Your task to perform on an android device: find which apps use the phone's location Image 0: 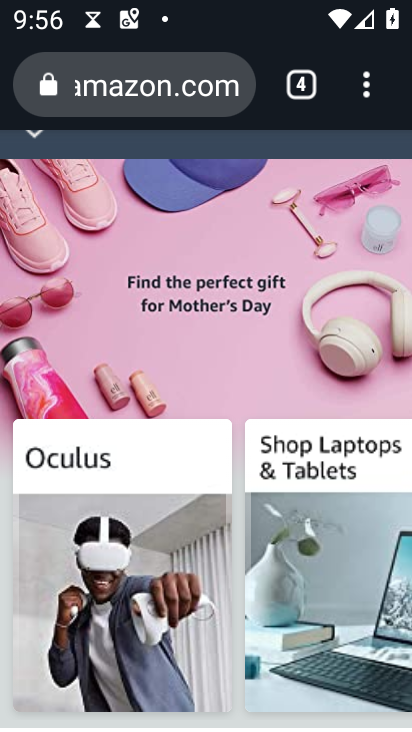
Step 0: press home button
Your task to perform on an android device: find which apps use the phone's location Image 1: 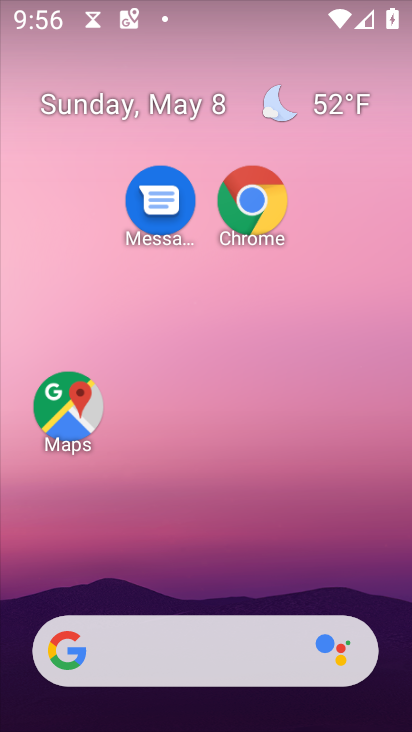
Step 1: drag from (205, 599) to (94, 28)
Your task to perform on an android device: find which apps use the phone's location Image 2: 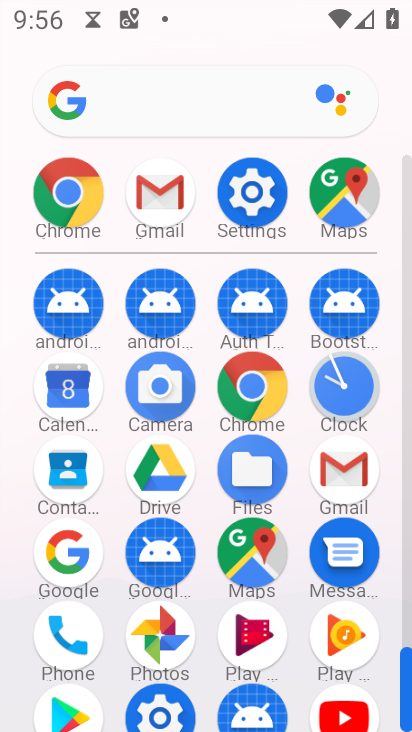
Step 2: click (241, 192)
Your task to perform on an android device: find which apps use the phone's location Image 3: 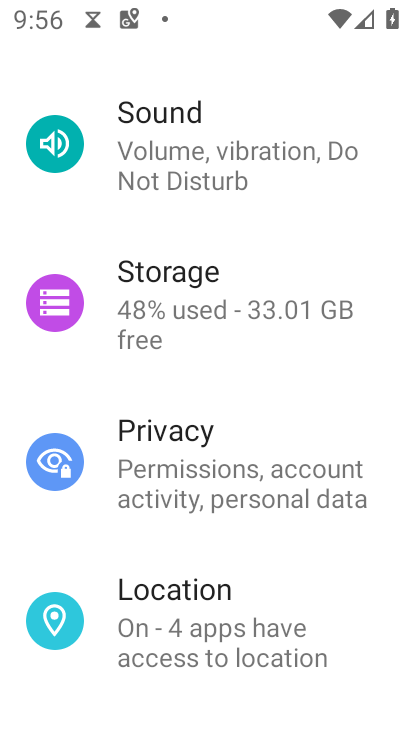
Step 3: click (155, 604)
Your task to perform on an android device: find which apps use the phone's location Image 4: 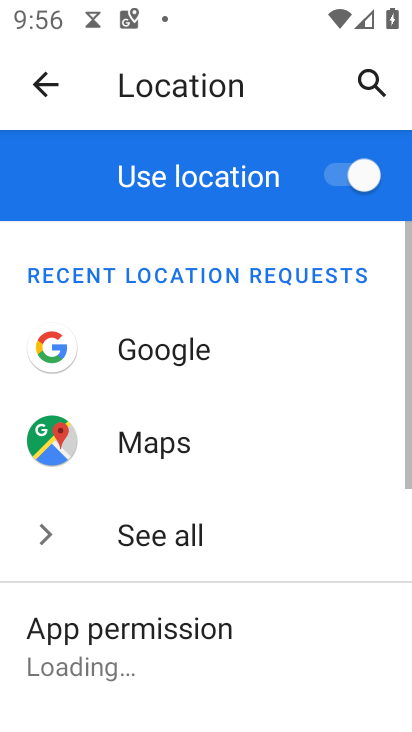
Step 4: drag from (220, 631) to (150, 152)
Your task to perform on an android device: find which apps use the phone's location Image 5: 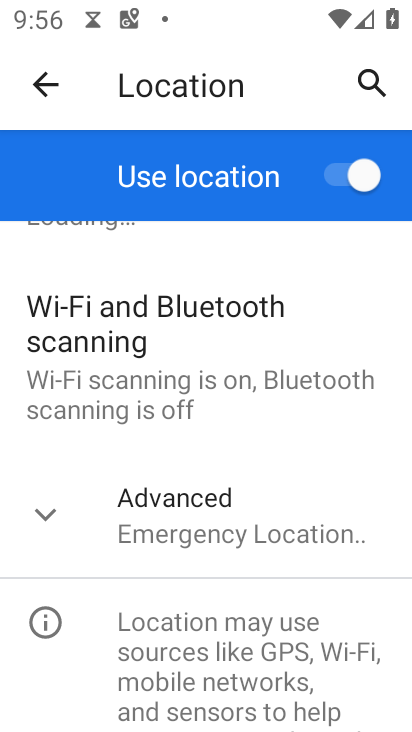
Step 5: drag from (141, 307) to (163, 638)
Your task to perform on an android device: find which apps use the phone's location Image 6: 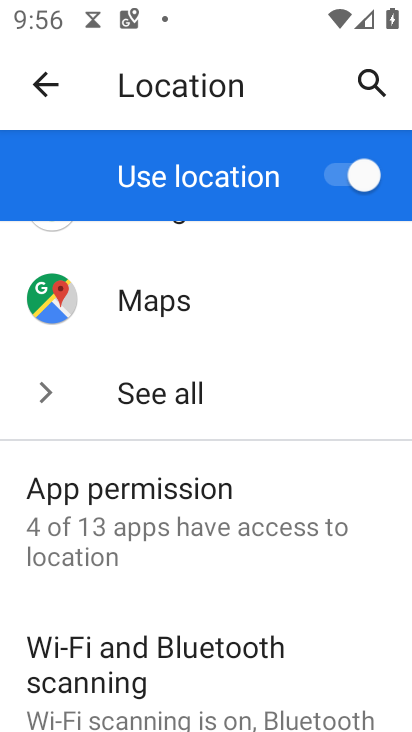
Step 6: click (131, 522)
Your task to perform on an android device: find which apps use the phone's location Image 7: 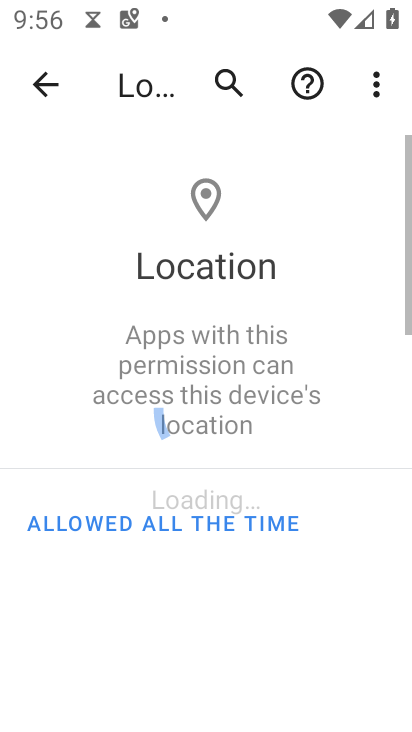
Step 7: task complete